Your task to perform on an android device: open a bookmark in the chrome app Image 0: 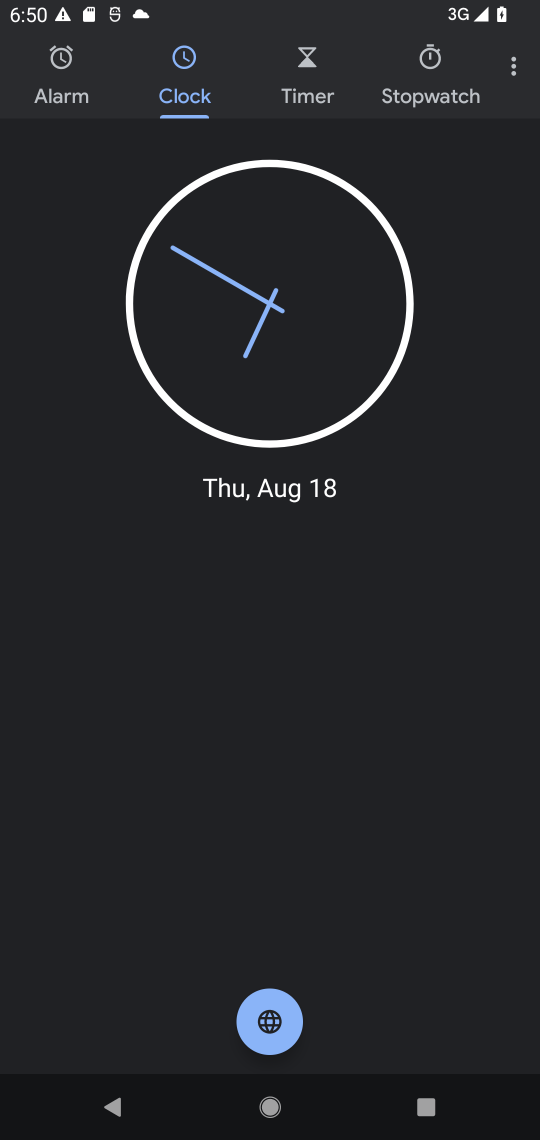
Step 0: press home button
Your task to perform on an android device: open a bookmark in the chrome app Image 1: 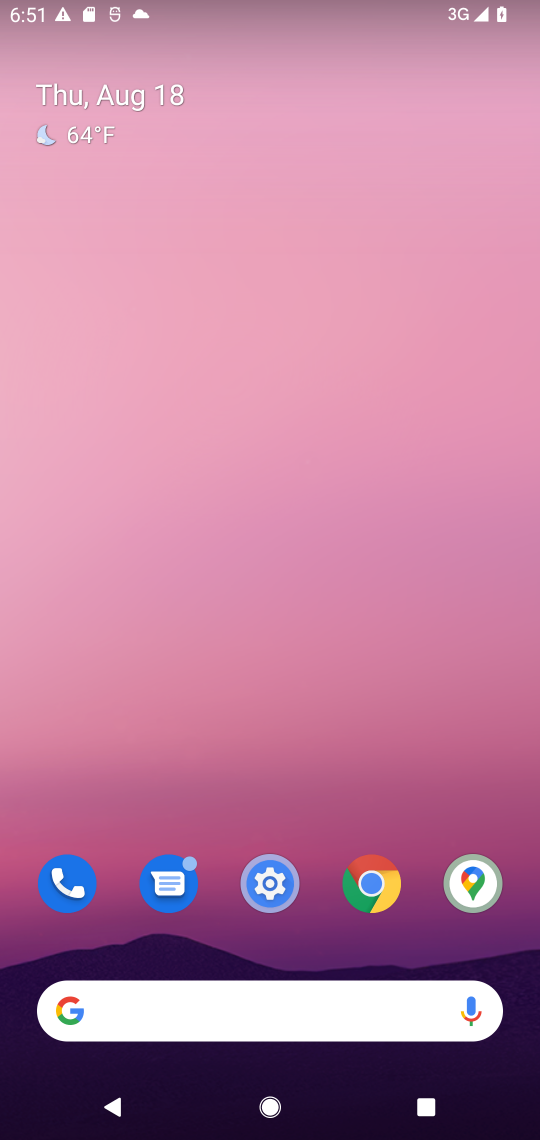
Step 1: click (370, 878)
Your task to perform on an android device: open a bookmark in the chrome app Image 2: 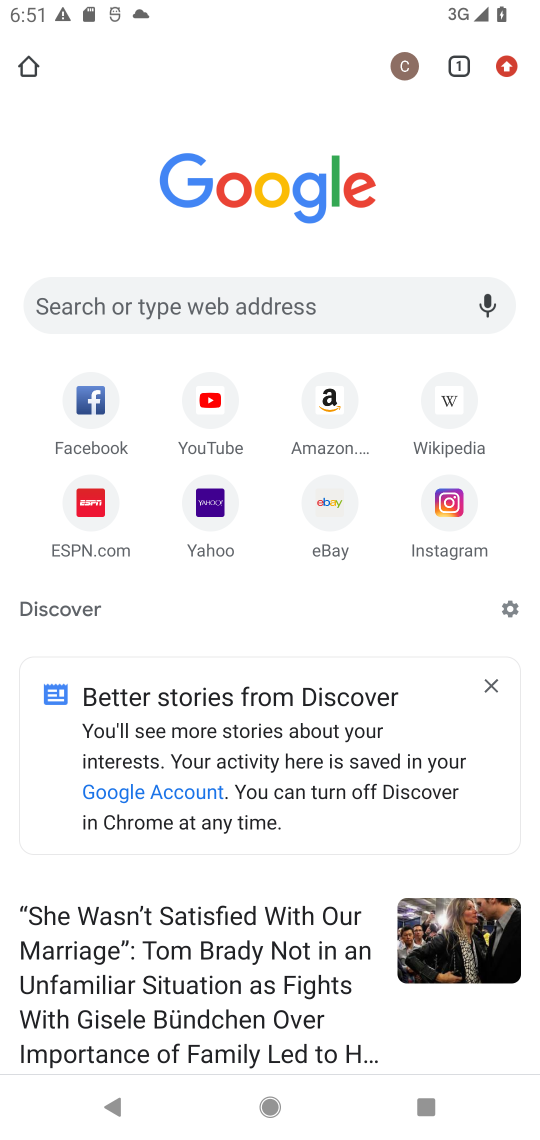
Step 2: click (378, 280)
Your task to perform on an android device: open a bookmark in the chrome app Image 3: 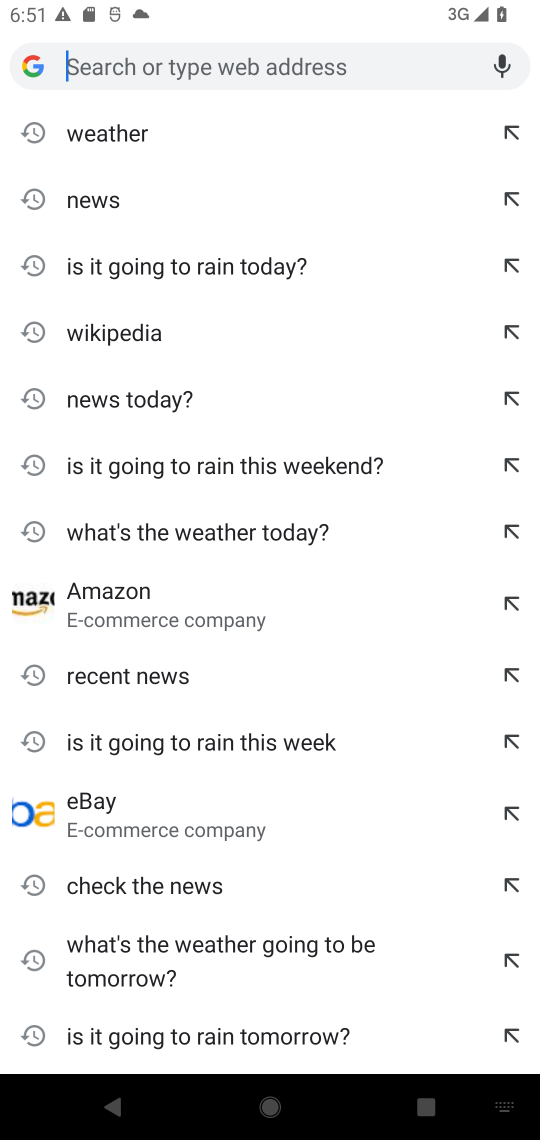
Step 3: task complete